Your task to perform on an android device: delete the emails in spam in the gmail app Image 0: 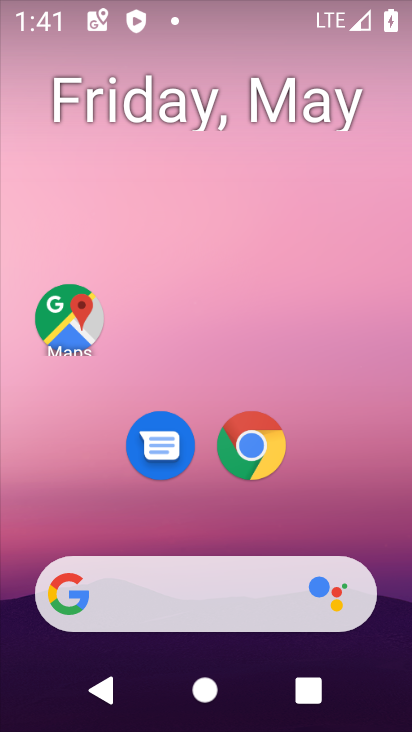
Step 0: drag from (208, 493) to (260, 32)
Your task to perform on an android device: delete the emails in spam in the gmail app Image 1: 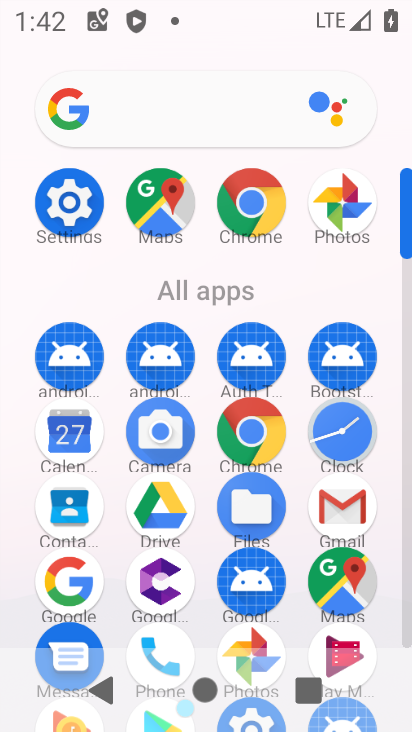
Step 1: click (338, 499)
Your task to perform on an android device: delete the emails in spam in the gmail app Image 2: 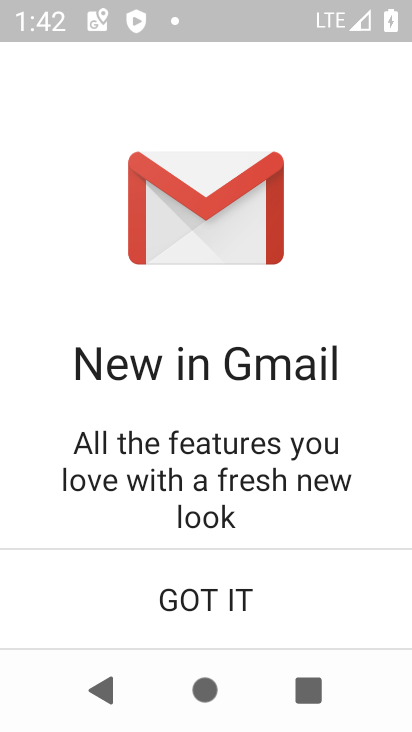
Step 2: click (217, 614)
Your task to perform on an android device: delete the emails in spam in the gmail app Image 3: 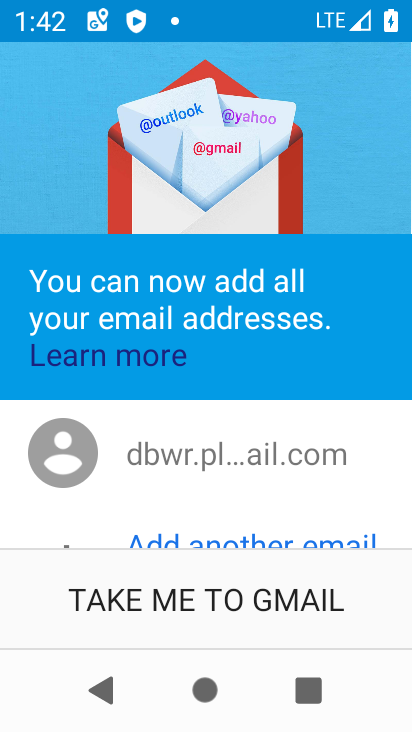
Step 3: click (189, 614)
Your task to perform on an android device: delete the emails in spam in the gmail app Image 4: 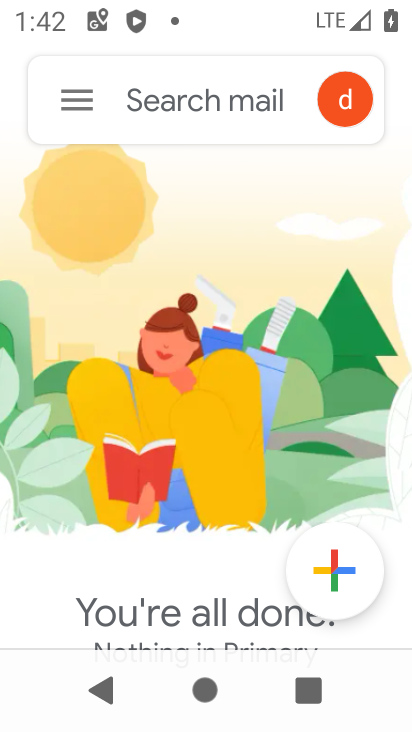
Step 4: click (78, 94)
Your task to perform on an android device: delete the emails in spam in the gmail app Image 5: 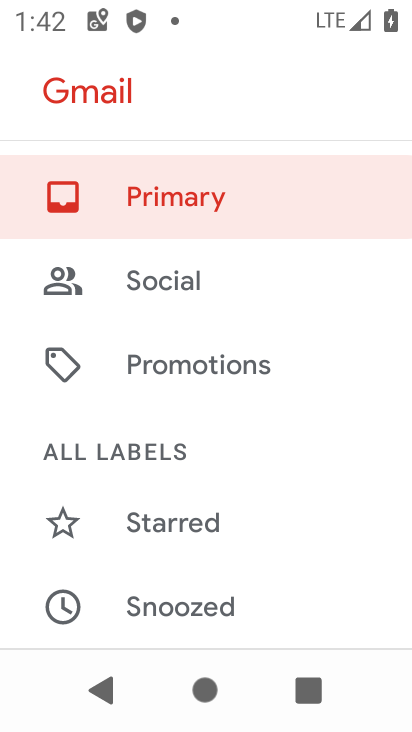
Step 5: drag from (125, 564) to (175, 70)
Your task to perform on an android device: delete the emails in spam in the gmail app Image 6: 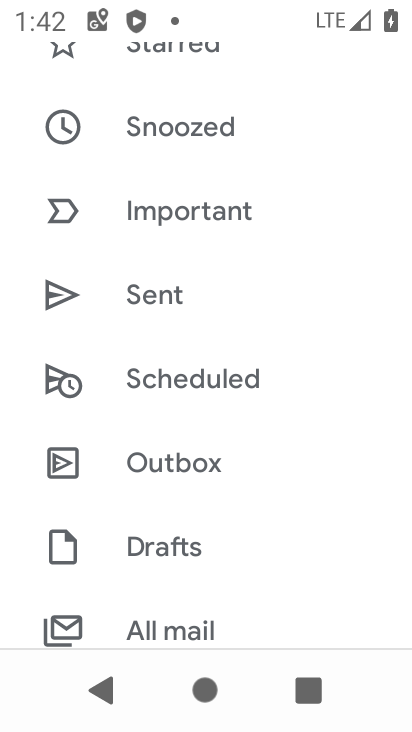
Step 6: drag from (158, 593) to (166, 200)
Your task to perform on an android device: delete the emails in spam in the gmail app Image 7: 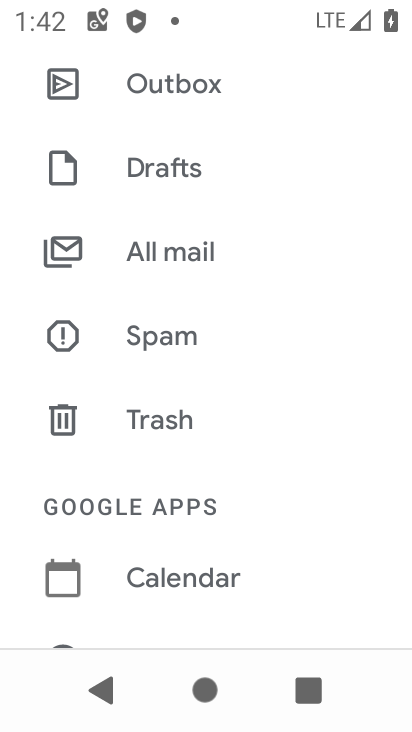
Step 7: click (103, 330)
Your task to perform on an android device: delete the emails in spam in the gmail app Image 8: 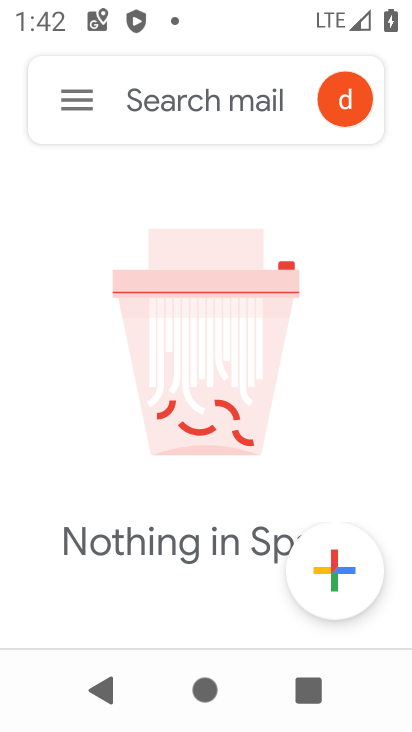
Step 8: task complete